Your task to perform on an android device: Open Android settings Image 0: 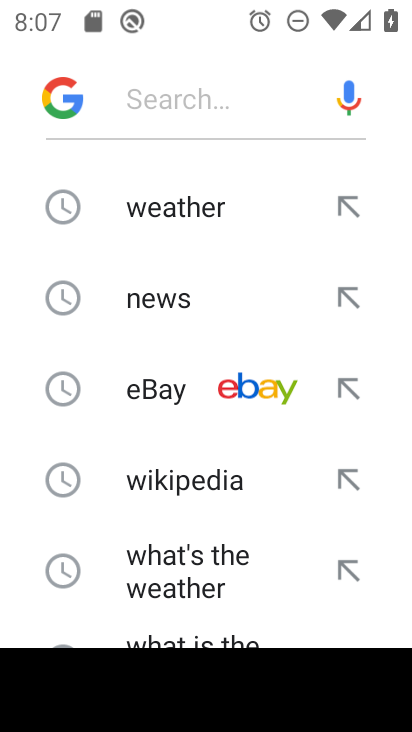
Step 0: press home button
Your task to perform on an android device: Open Android settings Image 1: 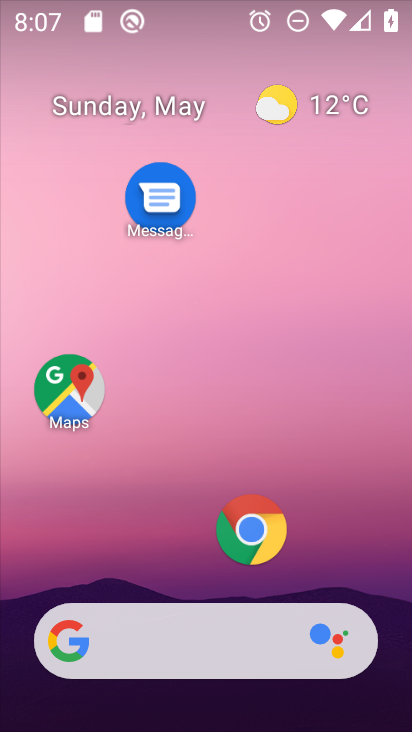
Step 1: drag from (205, 579) to (230, 181)
Your task to perform on an android device: Open Android settings Image 2: 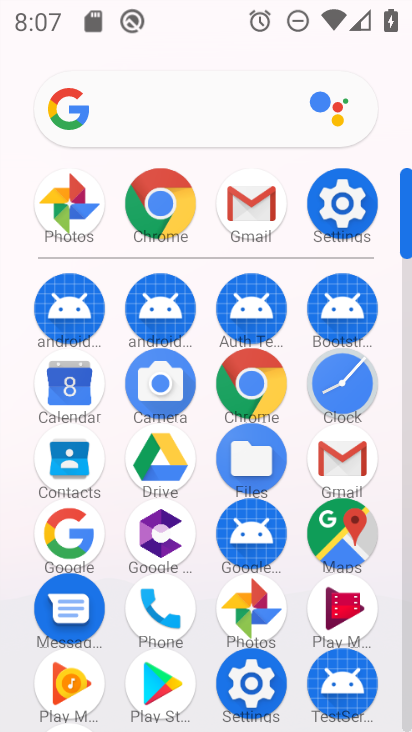
Step 2: click (248, 671)
Your task to perform on an android device: Open Android settings Image 3: 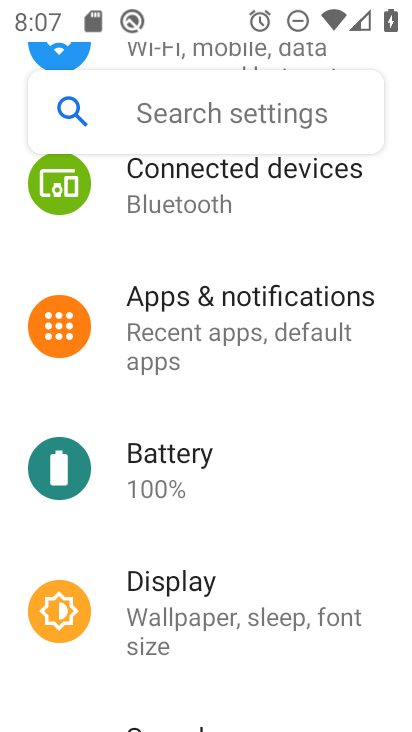
Step 3: drag from (240, 644) to (276, 146)
Your task to perform on an android device: Open Android settings Image 4: 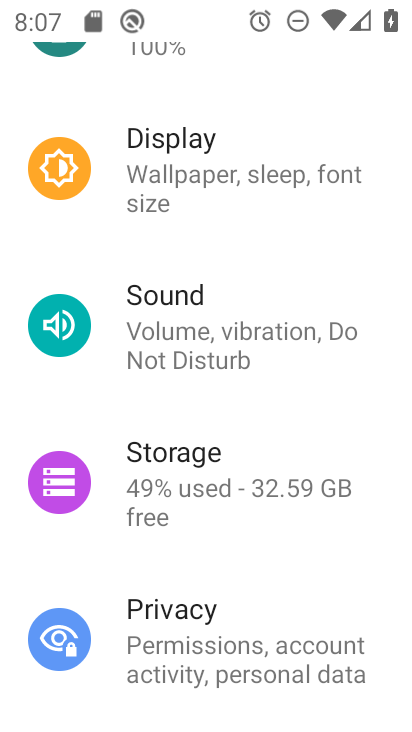
Step 4: drag from (247, 648) to (271, 114)
Your task to perform on an android device: Open Android settings Image 5: 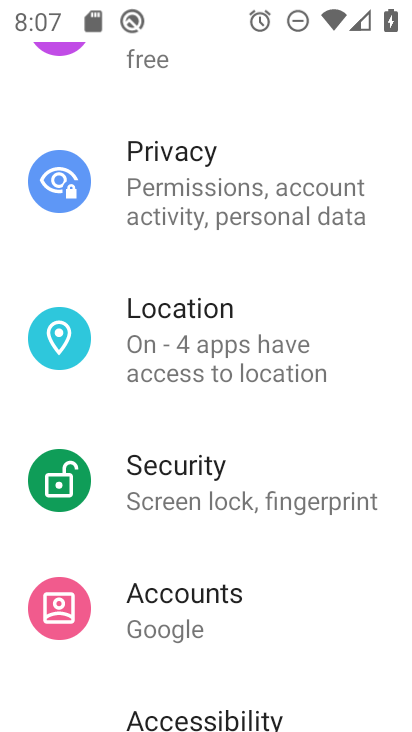
Step 5: drag from (227, 639) to (273, 142)
Your task to perform on an android device: Open Android settings Image 6: 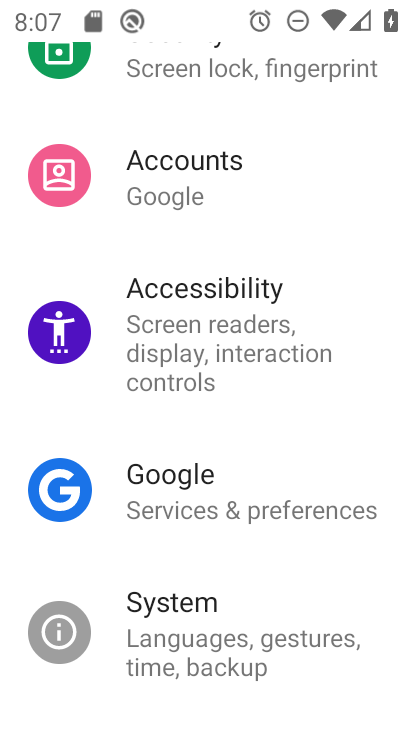
Step 6: drag from (241, 658) to (259, 126)
Your task to perform on an android device: Open Android settings Image 7: 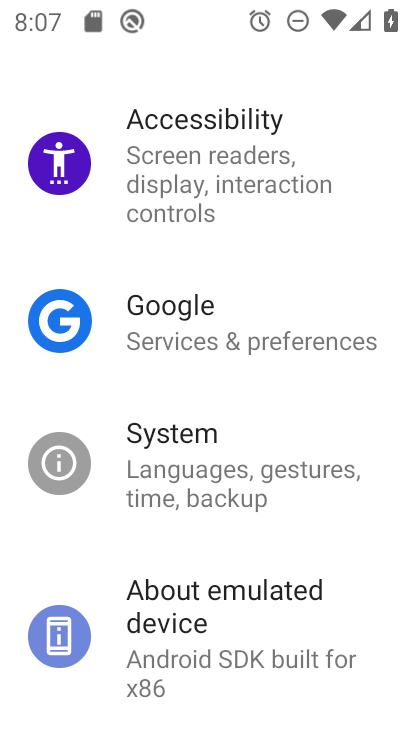
Step 7: click (238, 620)
Your task to perform on an android device: Open Android settings Image 8: 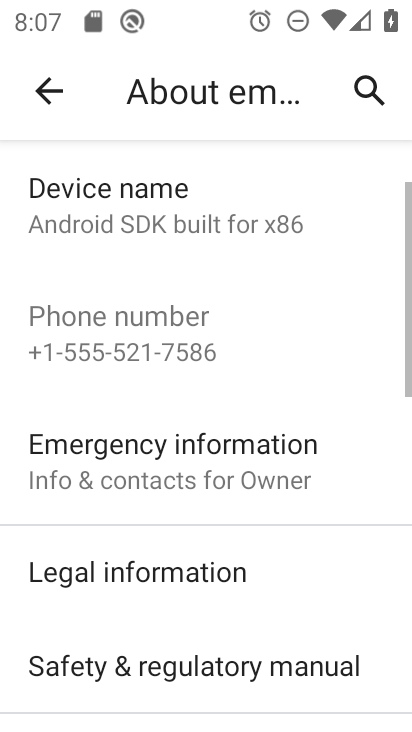
Step 8: drag from (205, 606) to (205, 82)
Your task to perform on an android device: Open Android settings Image 9: 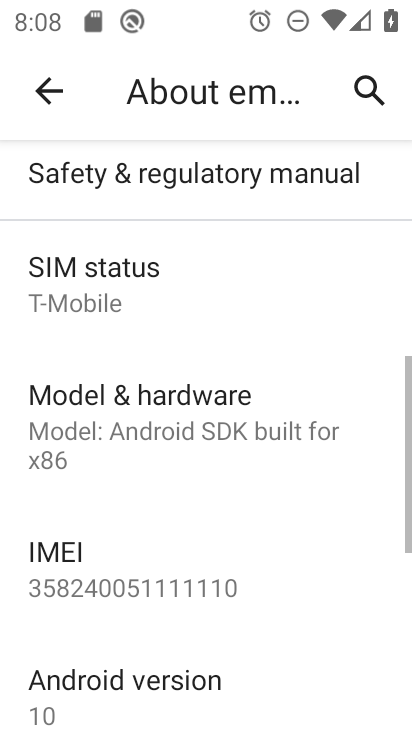
Step 9: click (186, 689)
Your task to perform on an android device: Open Android settings Image 10: 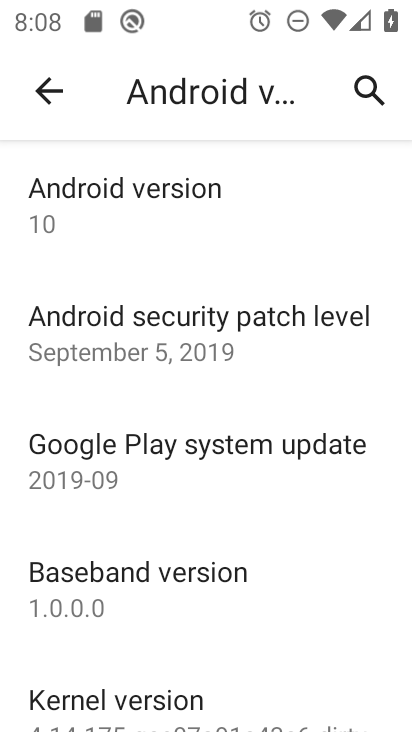
Step 10: task complete